Your task to perform on an android device: Go to Android settings Image 0: 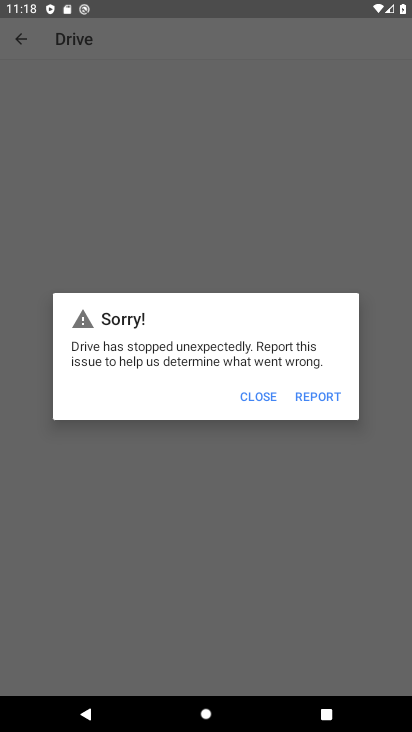
Step 0: click (217, 348)
Your task to perform on an android device: Go to Android settings Image 1: 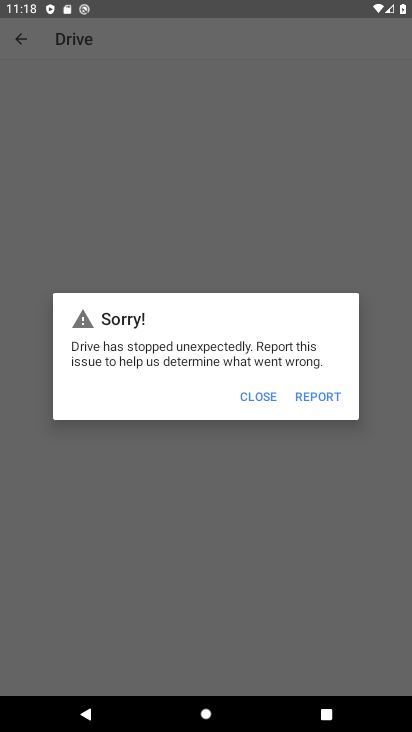
Step 1: click (262, 407)
Your task to perform on an android device: Go to Android settings Image 2: 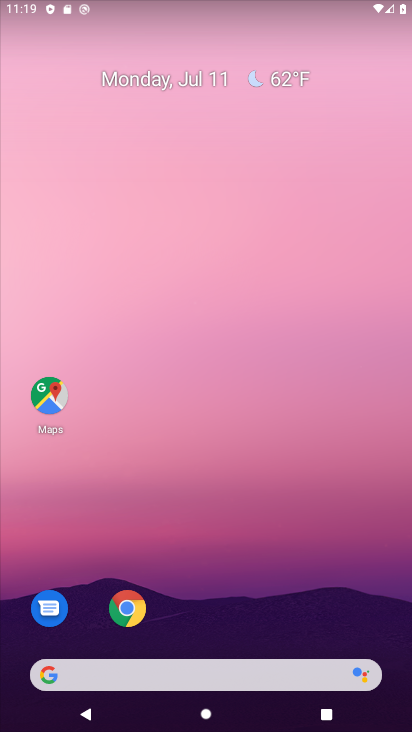
Step 2: drag from (223, 627) to (209, 12)
Your task to perform on an android device: Go to Android settings Image 3: 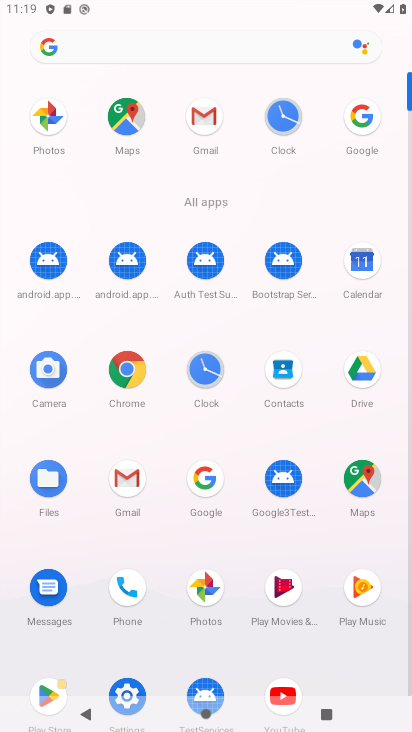
Step 3: click (139, 681)
Your task to perform on an android device: Go to Android settings Image 4: 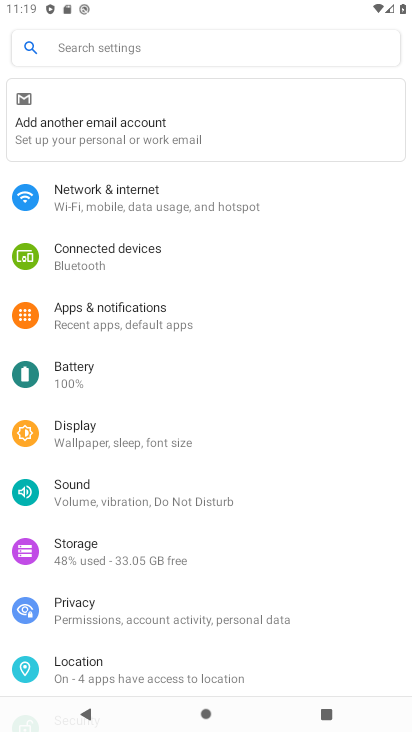
Step 4: drag from (242, 605) to (178, 67)
Your task to perform on an android device: Go to Android settings Image 5: 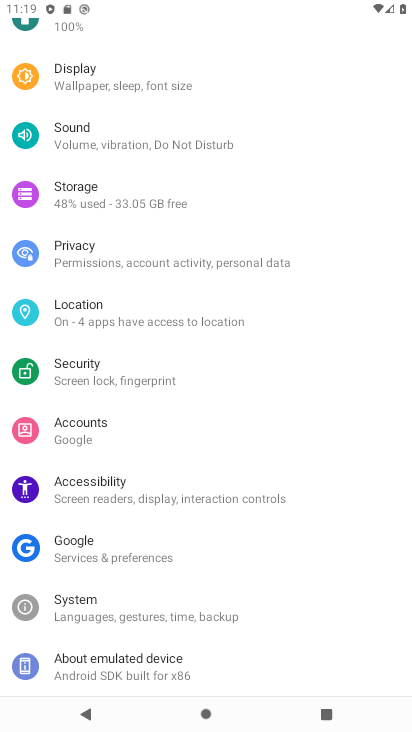
Step 5: click (153, 660)
Your task to perform on an android device: Go to Android settings Image 6: 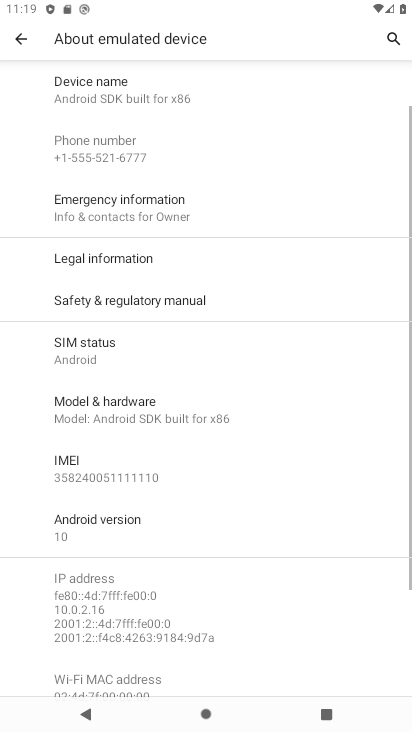
Step 6: click (130, 538)
Your task to perform on an android device: Go to Android settings Image 7: 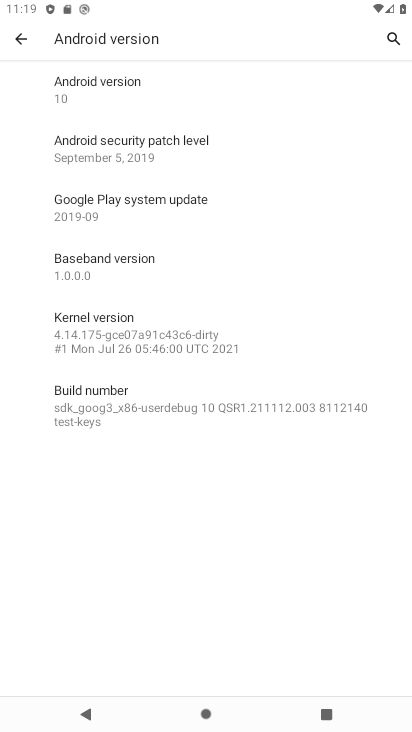
Step 7: task complete